Your task to perform on an android device: all mails in gmail Image 0: 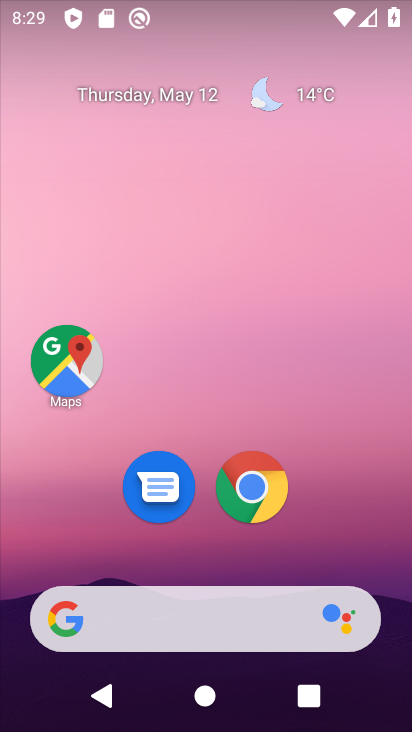
Step 0: drag from (327, 707) to (205, 203)
Your task to perform on an android device: all mails in gmail Image 1: 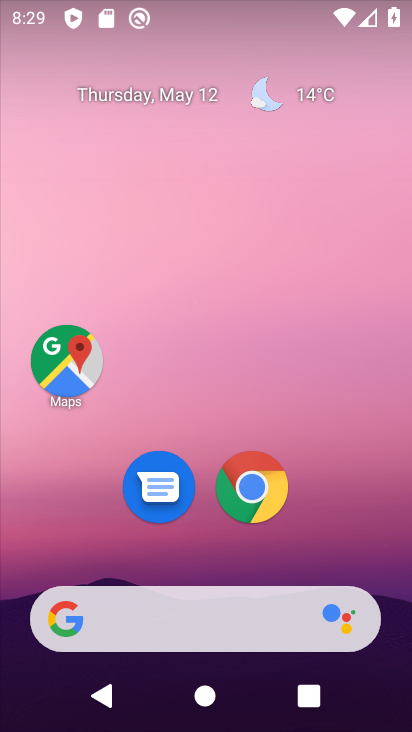
Step 1: drag from (31, 619) to (324, 137)
Your task to perform on an android device: all mails in gmail Image 2: 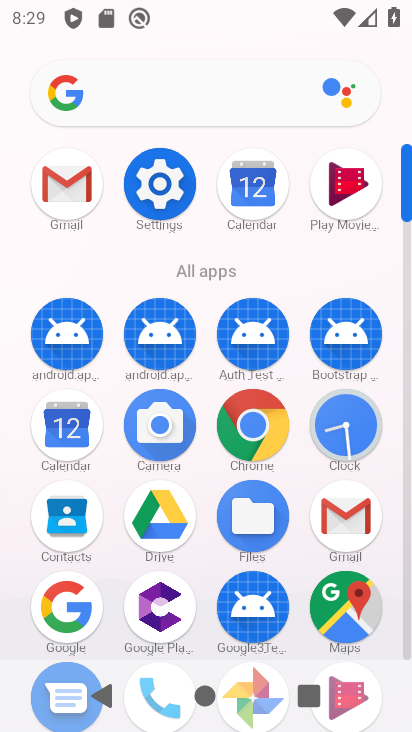
Step 2: click (75, 180)
Your task to perform on an android device: all mails in gmail Image 3: 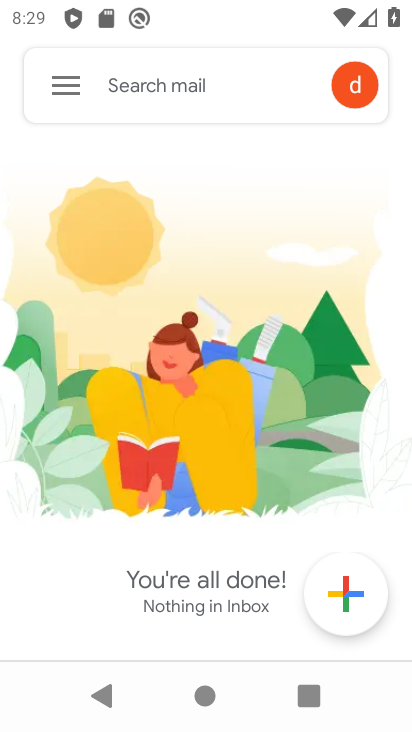
Step 3: click (65, 101)
Your task to perform on an android device: all mails in gmail Image 4: 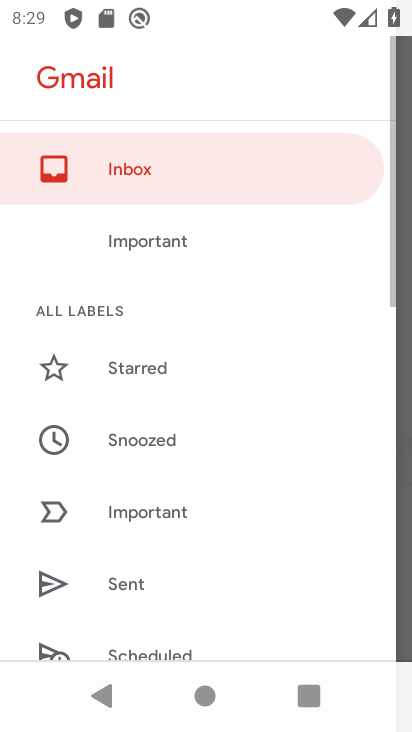
Step 4: drag from (1, 535) to (232, 173)
Your task to perform on an android device: all mails in gmail Image 5: 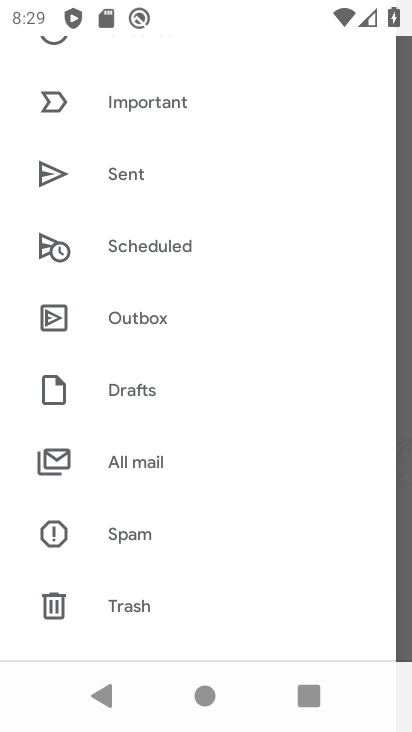
Step 5: click (121, 459)
Your task to perform on an android device: all mails in gmail Image 6: 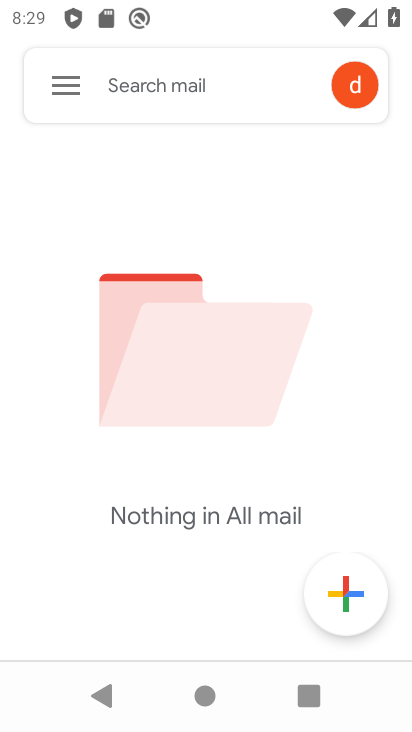
Step 6: task complete